Your task to perform on an android device: turn smart compose on in the gmail app Image 0: 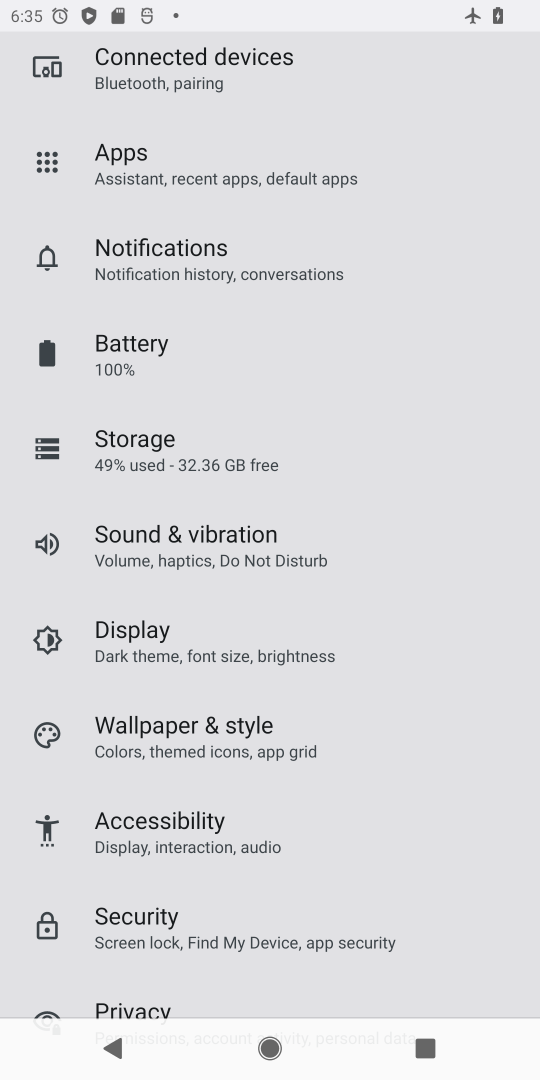
Step 0: press home button
Your task to perform on an android device: turn smart compose on in the gmail app Image 1: 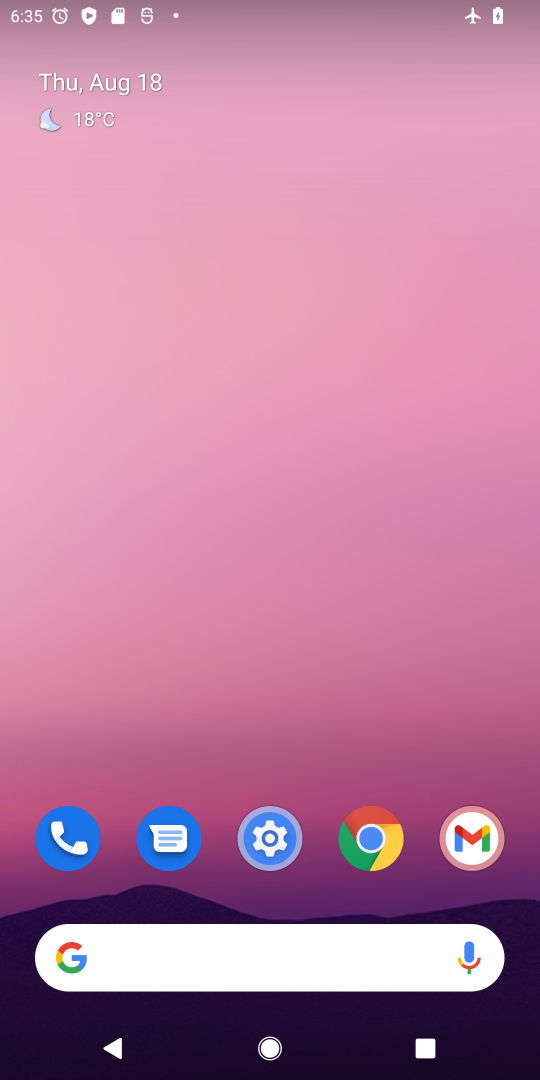
Step 1: click (469, 838)
Your task to perform on an android device: turn smart compose on in the gmail app Image 2: 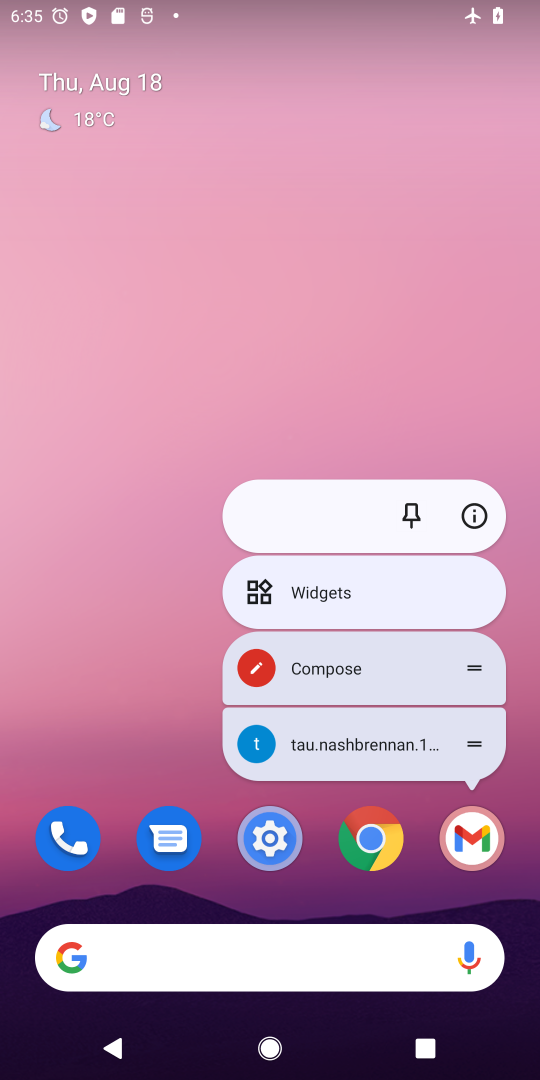
Step 2: click (469, 837)
Your task to perform on an android device: turn smart compose on in the gmail app Image 3: 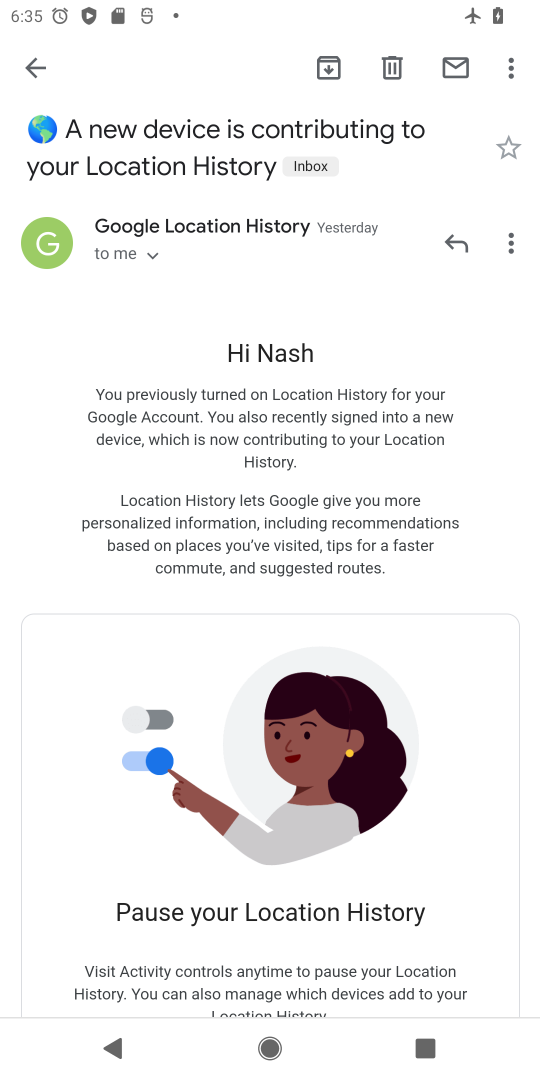
Step 3: press back button
Your task to perform on an android device: turn smart compose on in the gmail app Image 4: 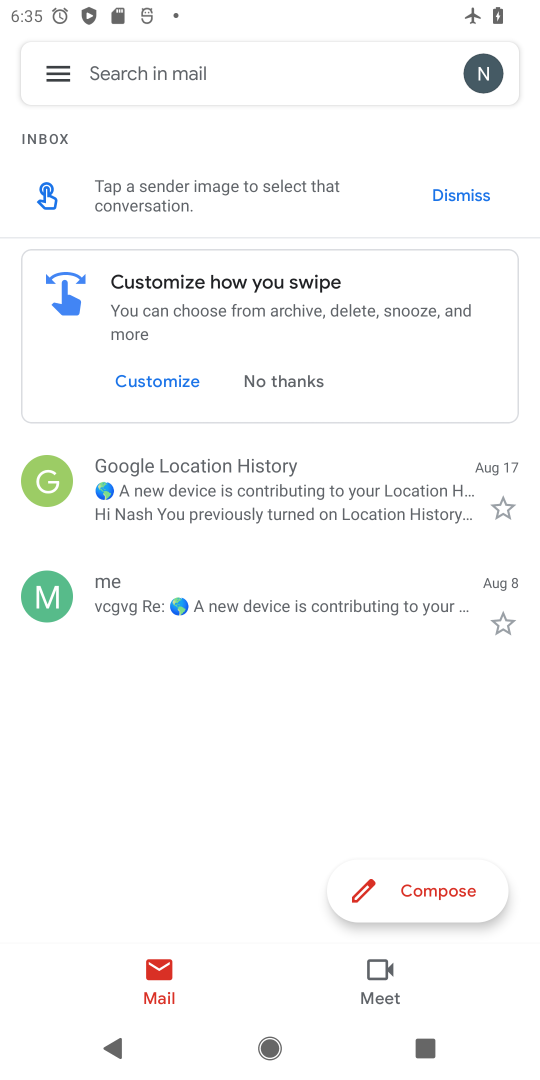
Step 4: click (54, 77)
Your task to perform on an android device: turn smart compose on in the gmail app Image 5: 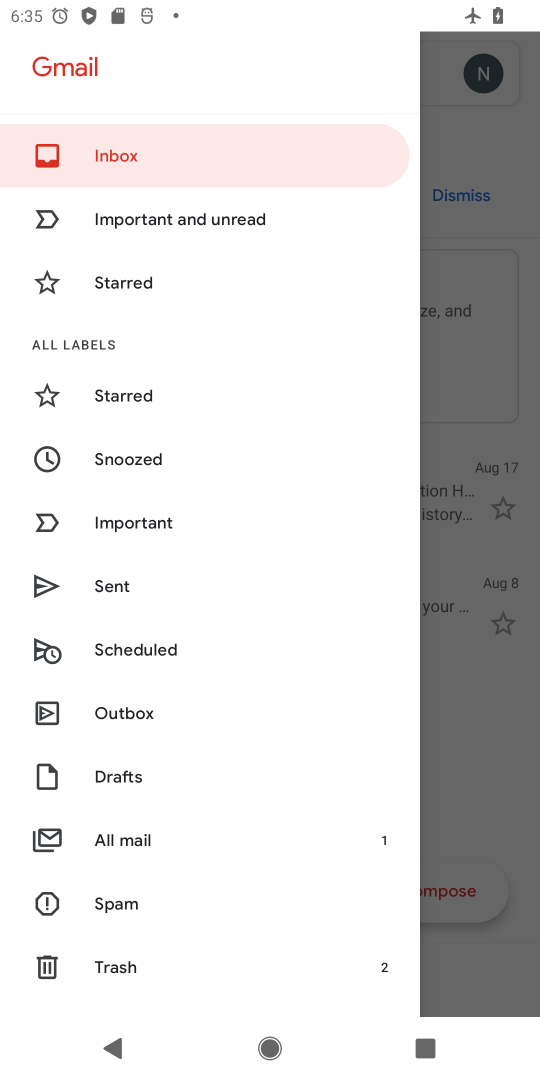
Step 5: drag from (259, 871) to (248, 11)
Your task to perform on an android device: turn smart compose on in the gmail app Image 6: 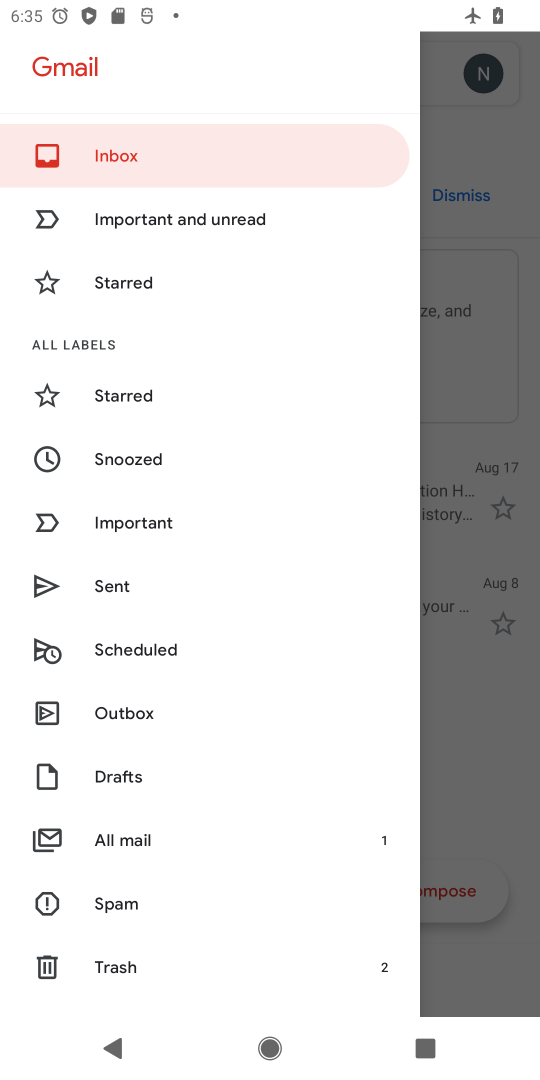
Step 6: drag from (248, 883) to (406, 31)
Your task to perform on an android device: turn smart compose on in the gmail app Image 7: 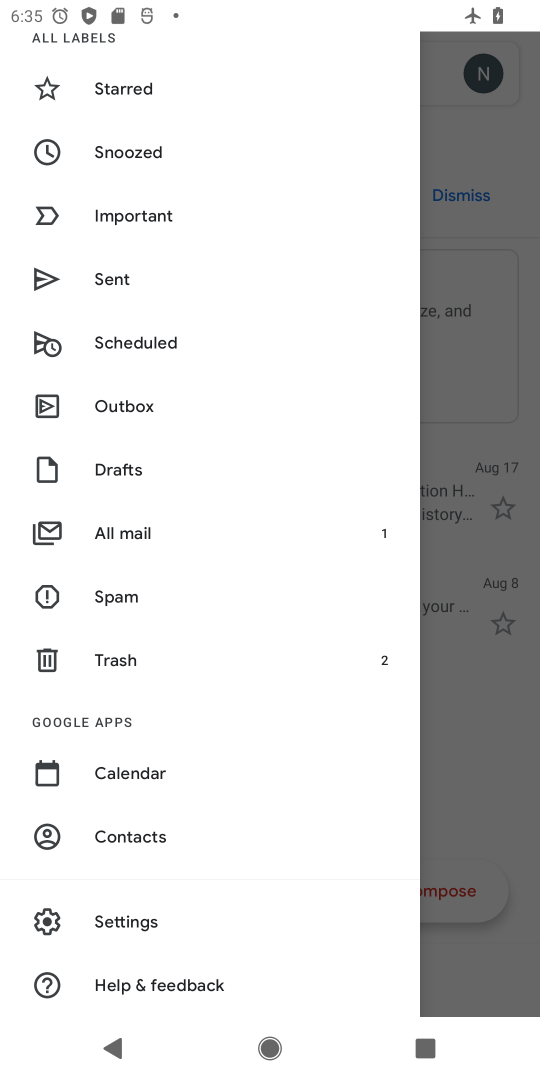
Step 7: click (120, 928)
Your task to perform on an android device: turn smart compose on in the gmail app Image 8: 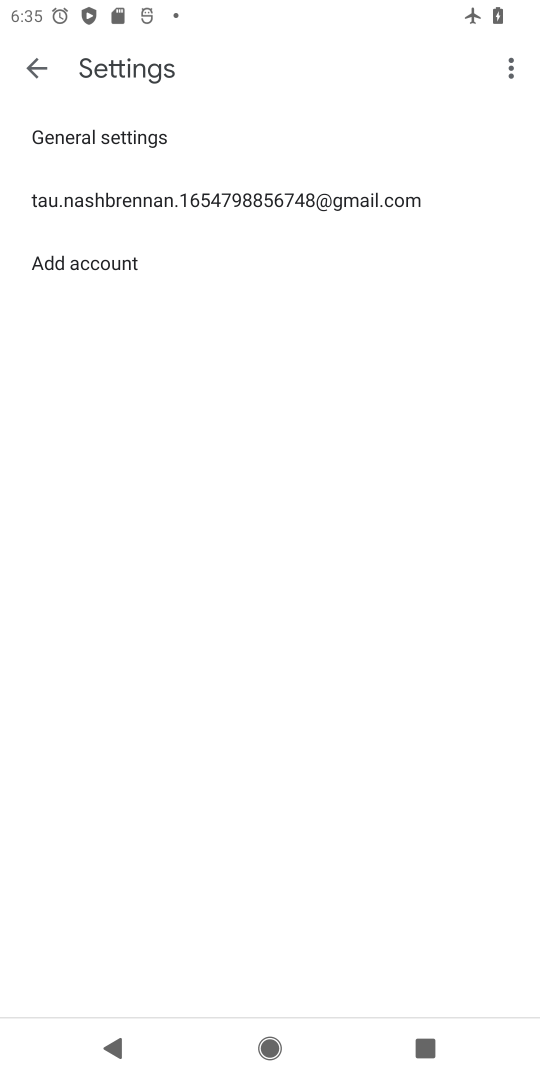
Step 8: click (203, 187)
Your task to perform on an android device: turn smart compose on in the gmail app Image 9: 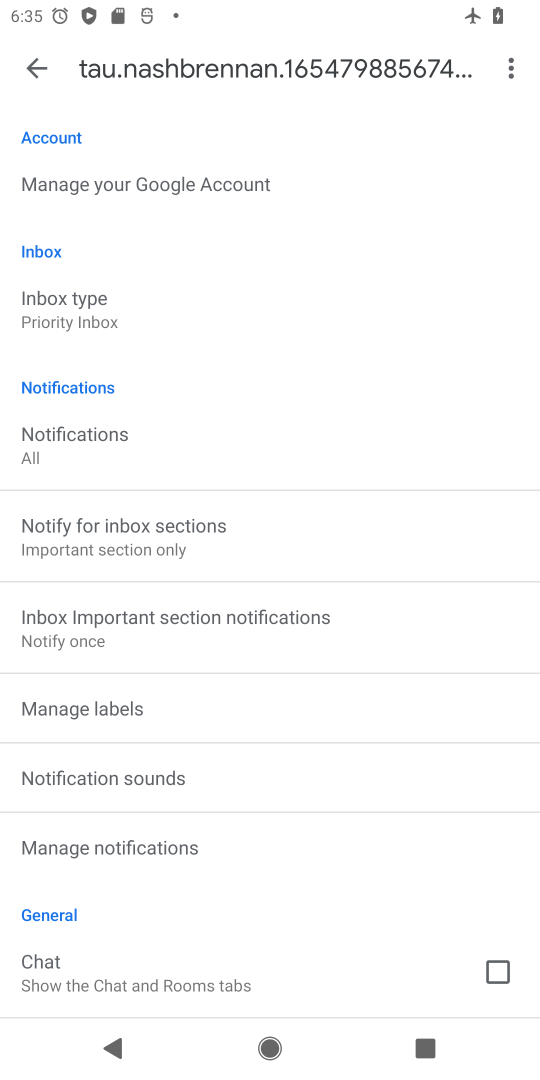
Step 9: task complete